Your task to perform on an android device: toggle notifications settings in the gmail app Image 0: 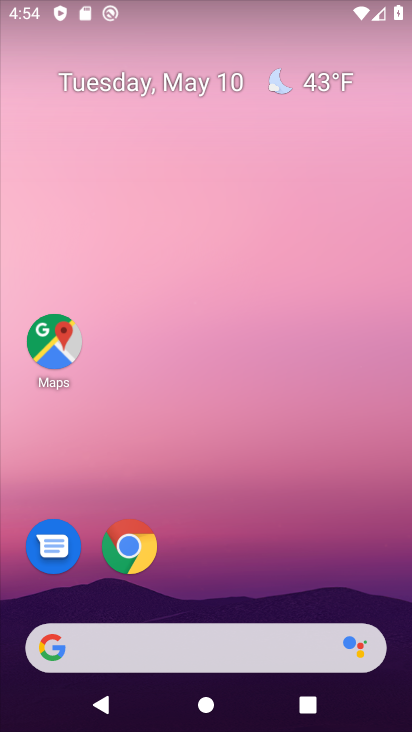
Step 0: drag from (346, 596) to (171, 22)
Your task to perform on an android device: toggle notifications settings in the gmail app Image 1: 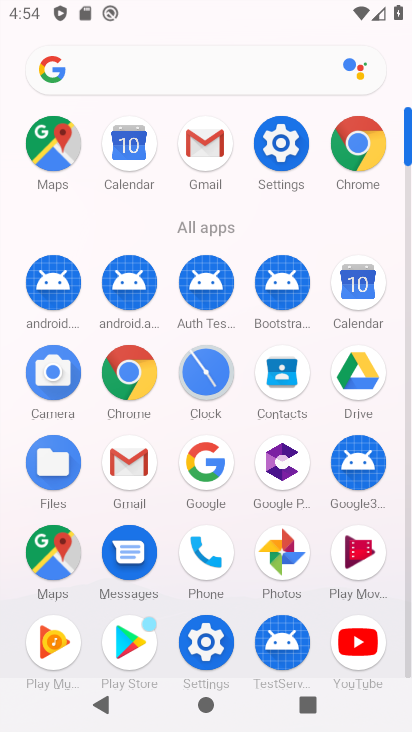
Step 1: click (115, 466)
Your task to perform on an android device: toggle notifications settings in the gmail app Image 2: 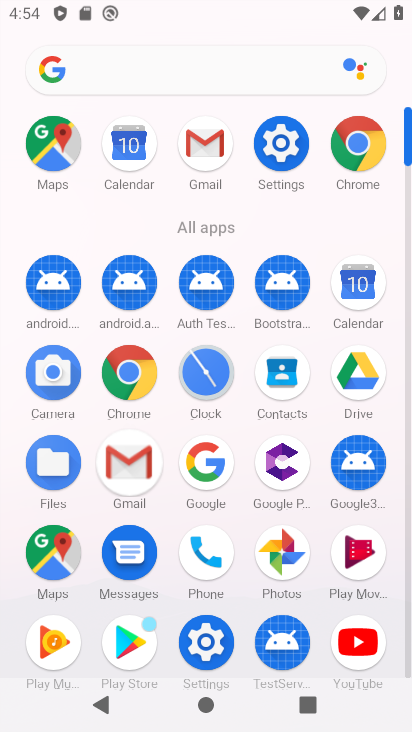
Step 2: click (120, 460)
Your task to perform on an android device: toggle notifications settings in the gmail app Image 3: 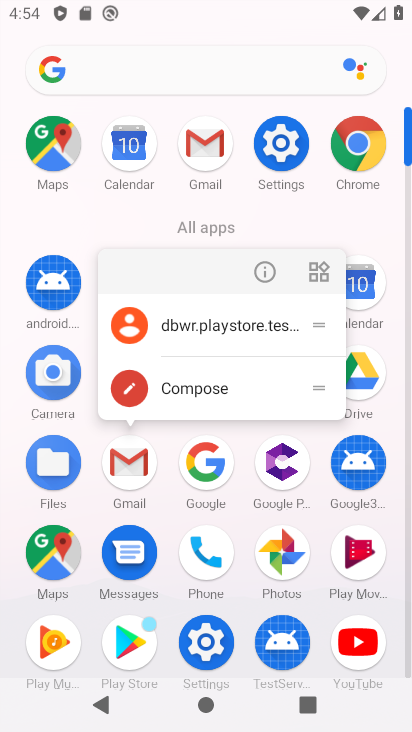
Step 3: click (120, 460)
Your task to perform on an android device: toggle notifications settings in the gmail app Image 4: 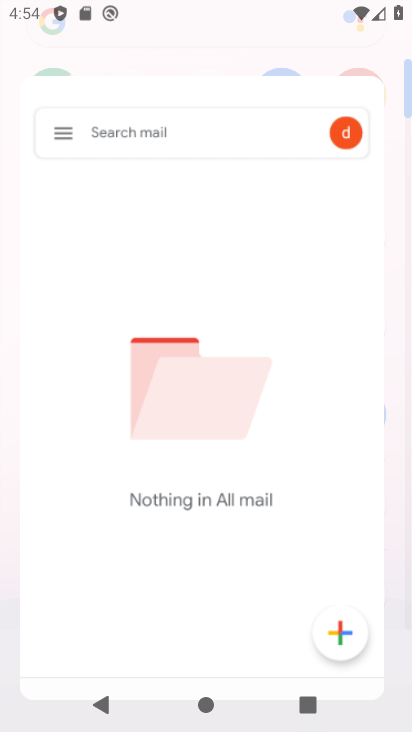
Step 4: click (120, 460)
Your task to perform on an android device: toggle notifications settings in the gmail app Image 5: 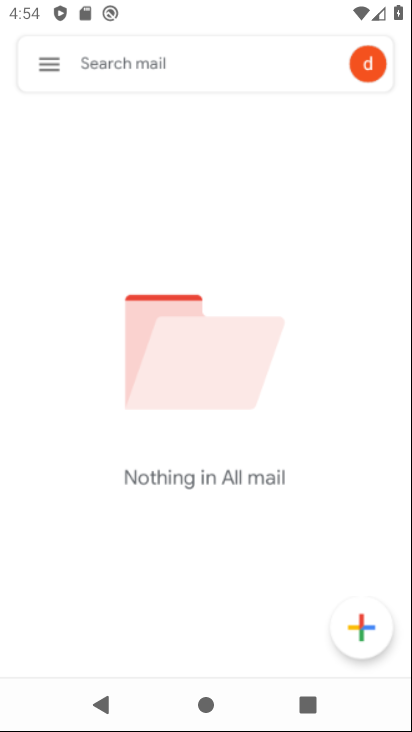
Step 5: click (122, 460)
Your task to perform on an android device: toggle notifications settings in the gmail app Image 6: 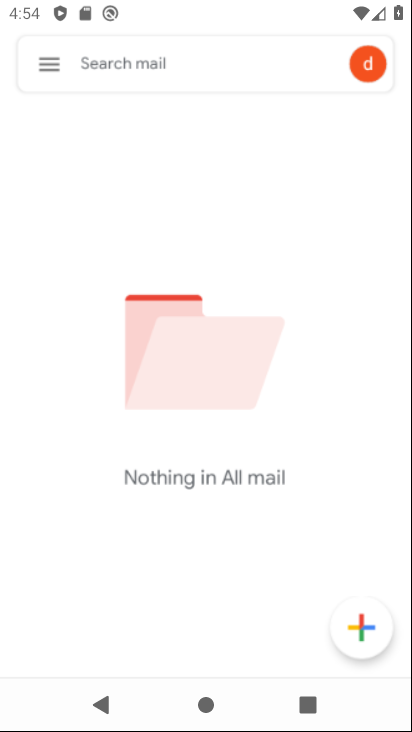
Step 6: click (123, 460)
Your task to perform on an android device: toggle notifications settings in the gmail app Image 7: 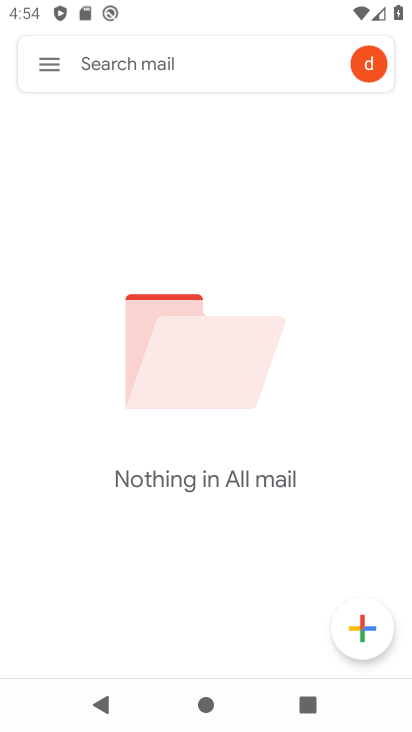
Step 7: click (38, 60)
Your task to perform on an android device: toggle notifications settings in the gmail app Image 8: 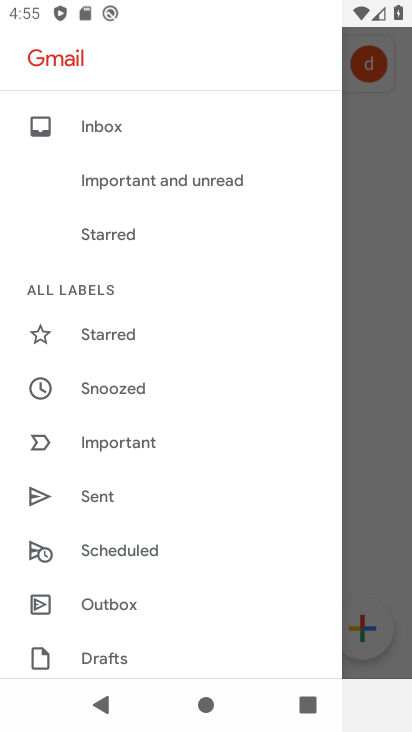
Step 8: drag from (119, 576) to (25, 191)
Your task to perform on an android device: toggle notifications settings in the gmail app Image 9: 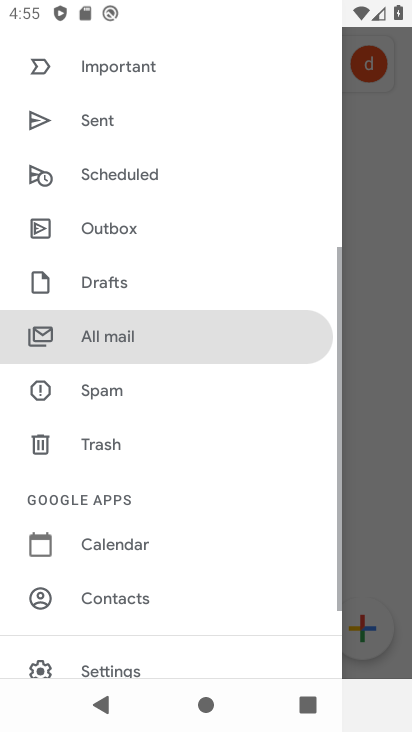
Step 9: drag from (202, 518) to (148, 303)
Your task to perform on an android device: toggle notifications settings in the gmail app Image 10: 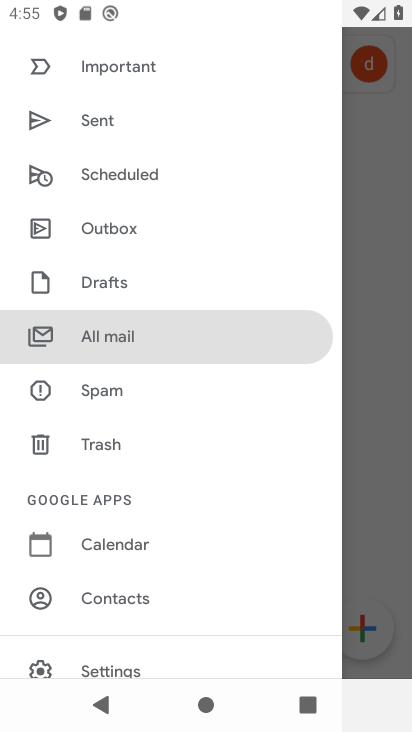
Step 10: drag from (116, 638) to (28, 107)
Your task to perform on an android device: toggle notifications settings in the gmail app Image 11: 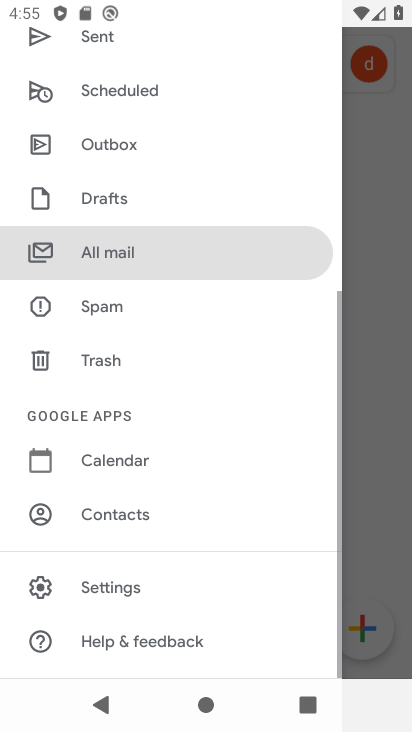
Step 11: click (104, 598)
Your task to perform on an android device: toggle notifications settings in the gmail app Image 12: 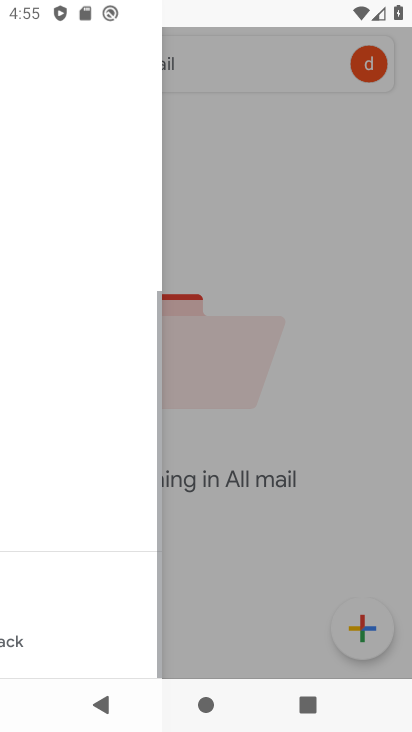
Step 12: click (102, 601)
Your task to perform on an android device: toggle notifications settings in the gmail app Image 13: 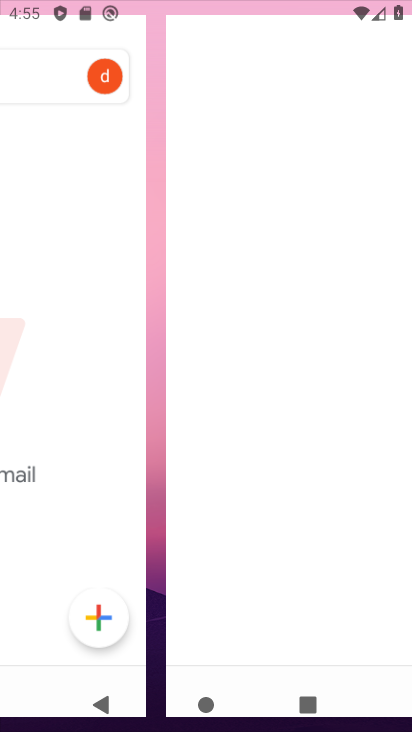
Step 13: click (108, 595)
Your task to perform on an android device: toggle notifications settings in the gmail app Image 14: 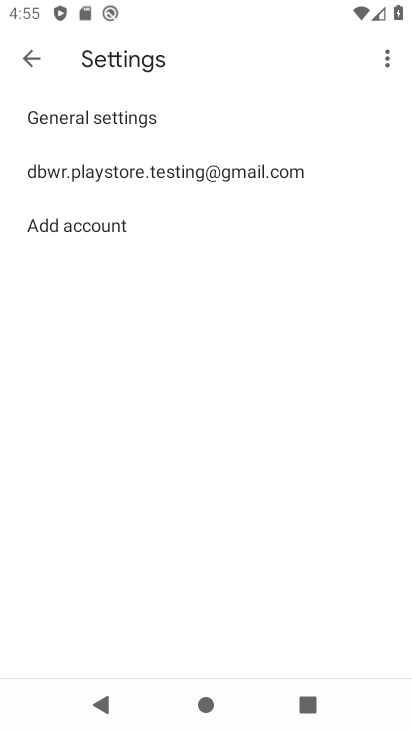
Step 14: click (106, 176)
Your task to perform on an android device: toggle notifications settings in the gmail app Image 15: 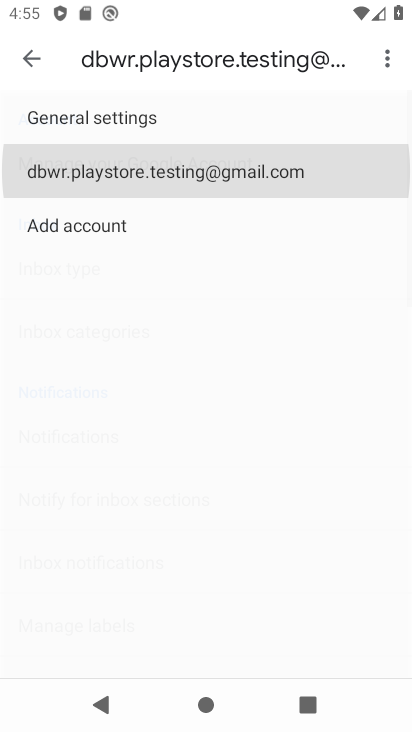
Step 15: click (107, 173)
Your task to perform on an android device: toggle notifications settings in the gmail app Image 16: 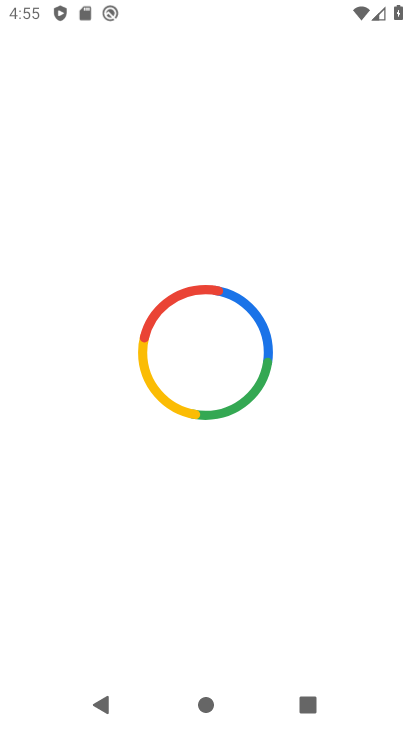
Step 16: press back button
Your task to perform on an android device: toggle notifications settings in the gmail app Image 17: 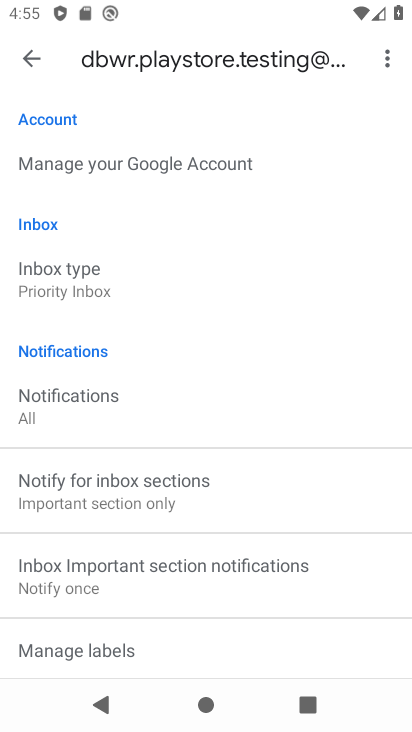
Step 17: click (40, 394)
Your task to perform on an android device: toggle notifications settings in the gmail app Image 18: 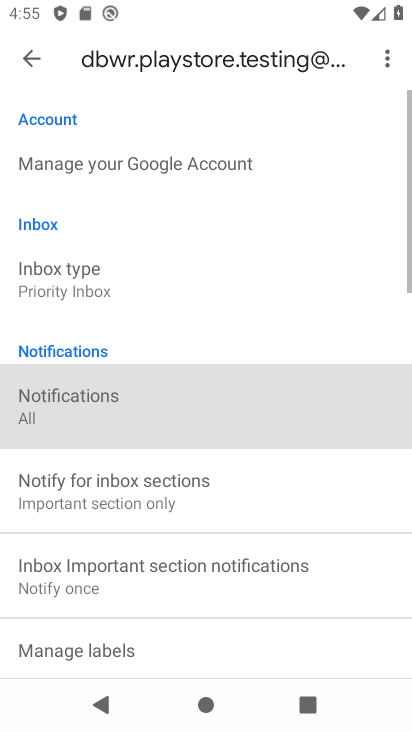
Step 18: click (43, 391)
Your task to perform on an android device: toggle notifications settings in the gmail app Image 19: 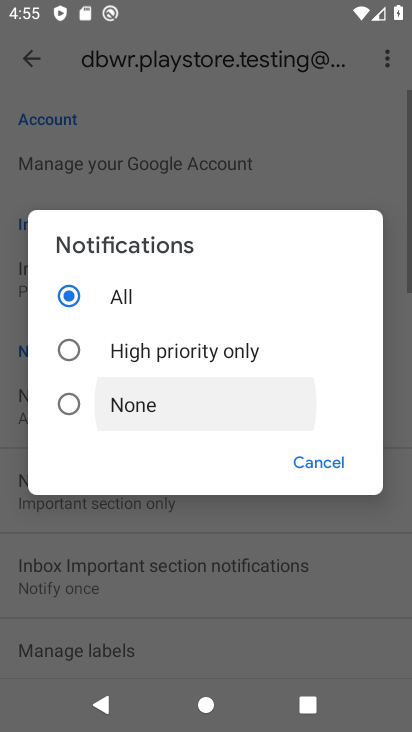
Step 19: click (43, 393)
Your task to perform on an android device: toggle notifications settings in the gmail app Image 20: 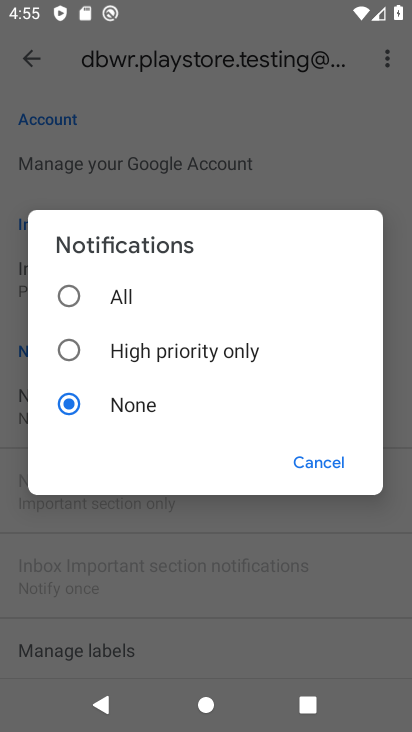
Step 20: click (66, 341)
Your task to perform on an android device: toggle notifications settings in the gmail app Image 21: 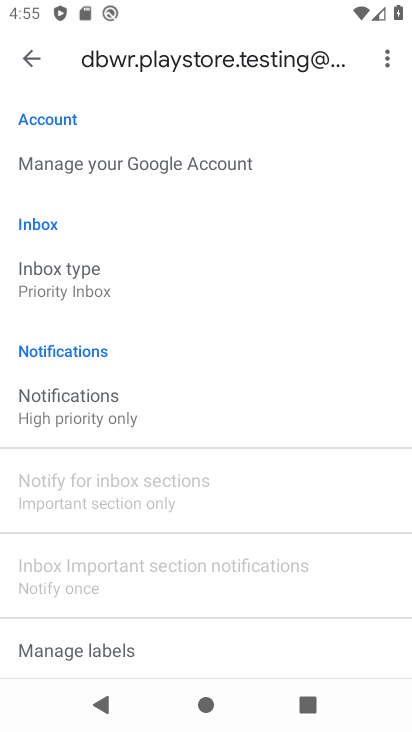
Step 21: task complete